Your task to perform on an android device: all mails in gmail Image 0: 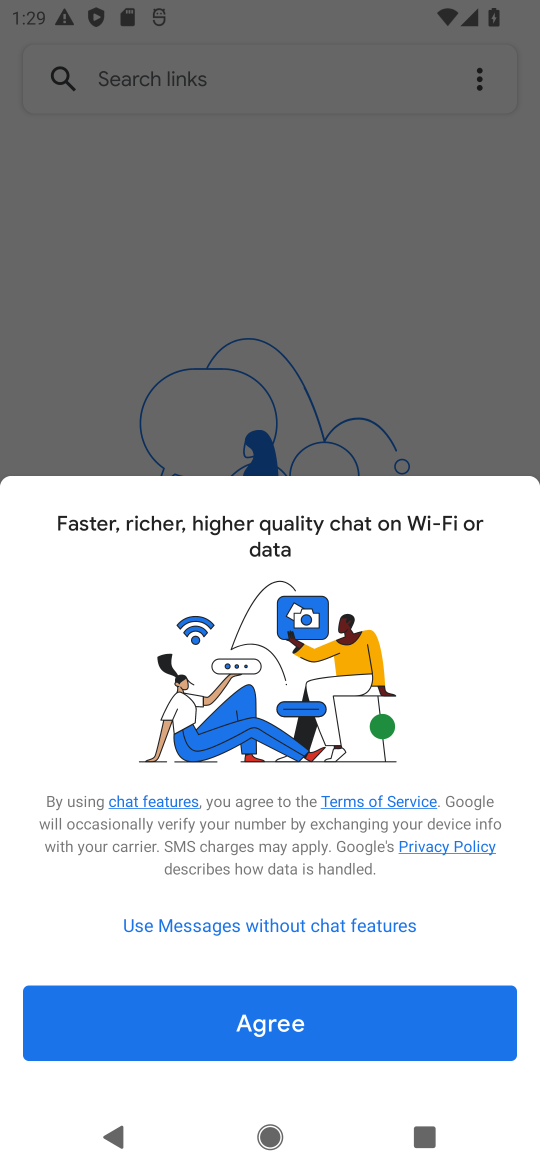
Step 0: press back button
Your task to perform on an android device: all mails in gmail Image 1: 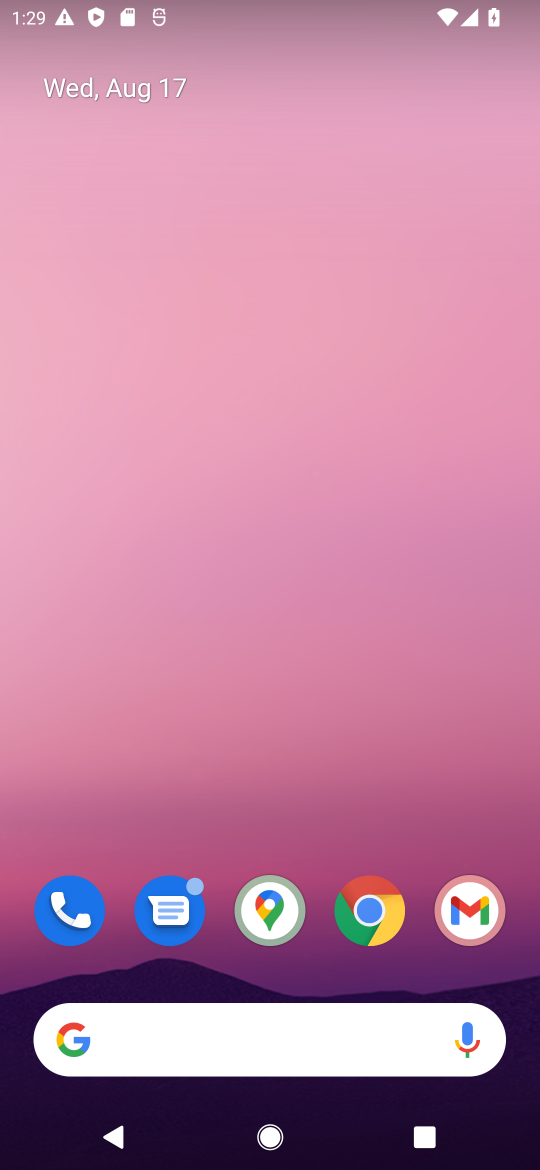
Step 1: click (451, 899)
Your task to perform on an android device: all mails in gmail Image 2: 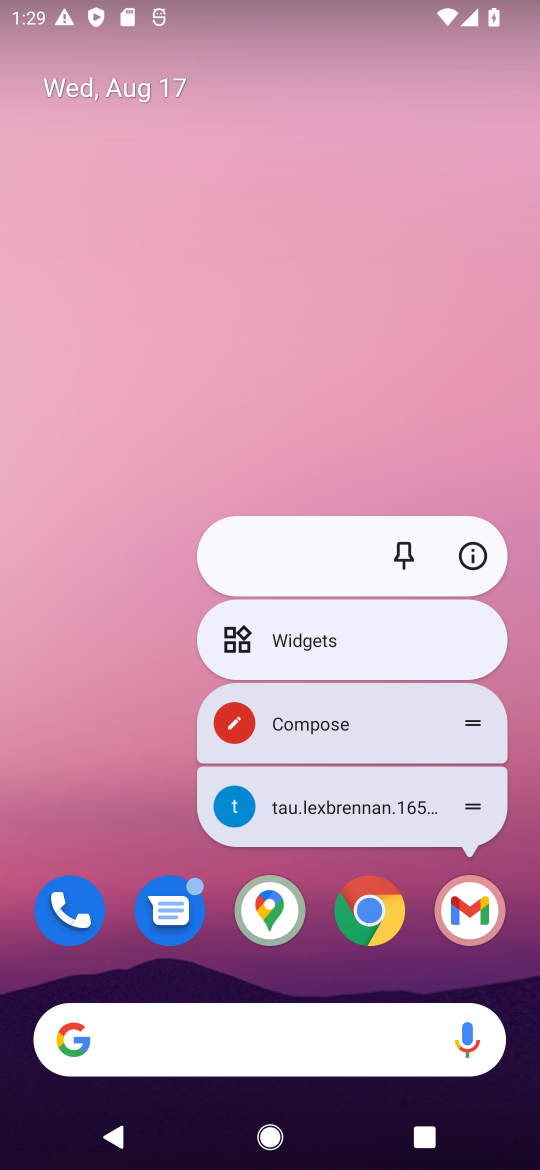
Step 2: click (457, 905)
Your task to perform on an android device: all mails in gmail Image 3: 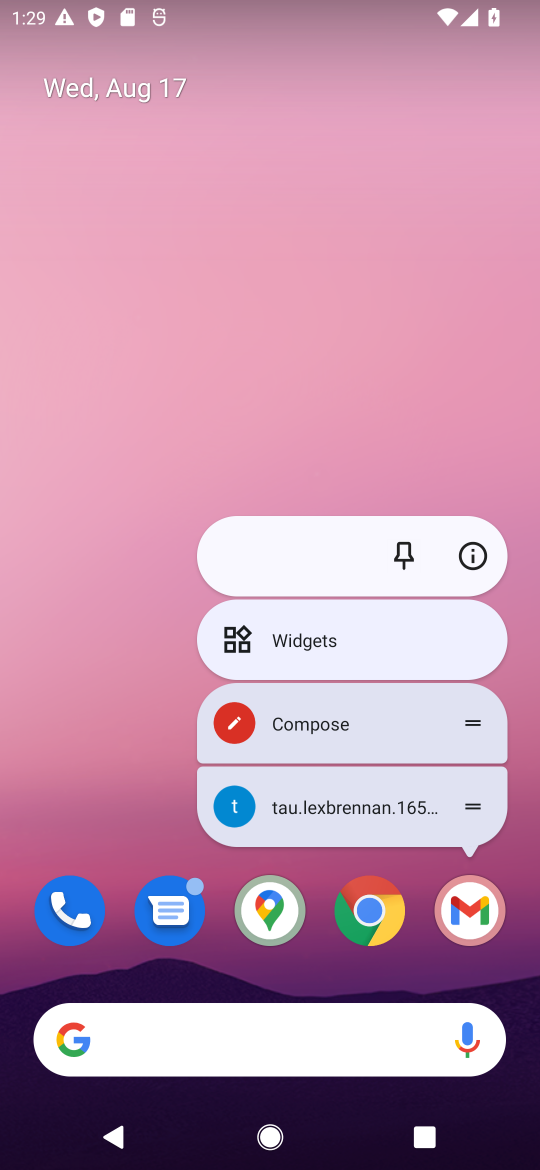
Step 3: click (474, 908)
Your task to perform on an android device: all mails in gmail Image 4: 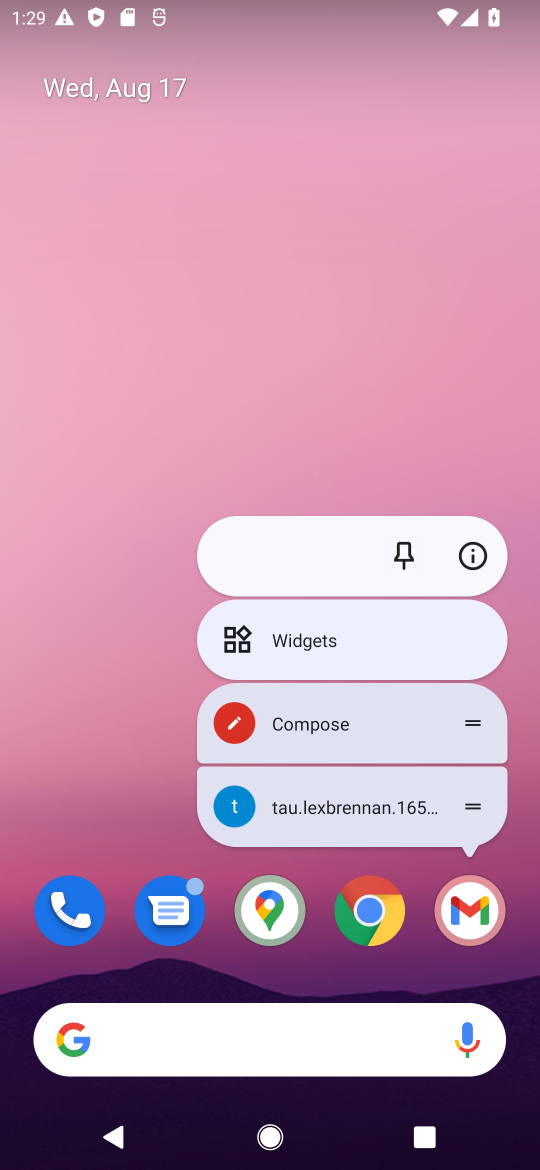
Step 4: click (474, 920)
Your task to perform on an android device: all mails in gmail Image 5: 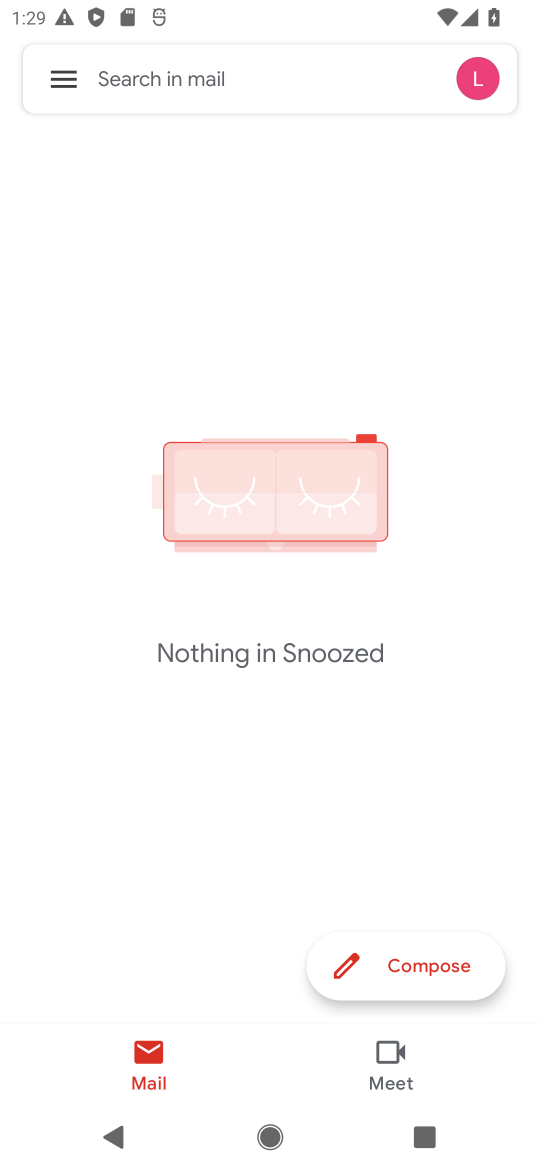
Step 5: click (68, 84)
Your task to perform on an android device: all mails in gmail Image 6: 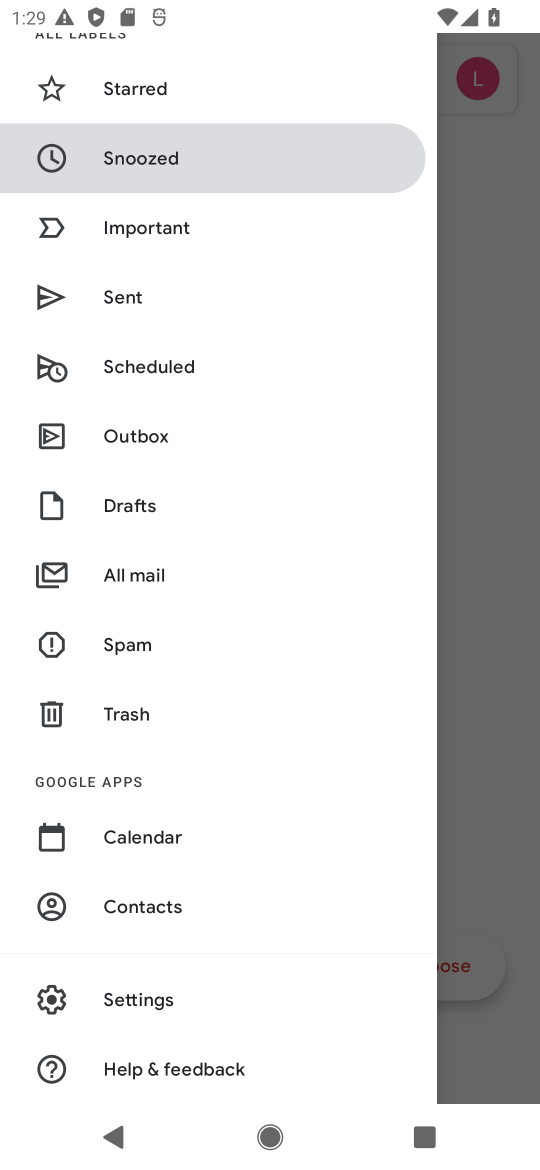
Step 6: click (168, 577)
Your task to perform on an android device: all mails in gmail Image 7: 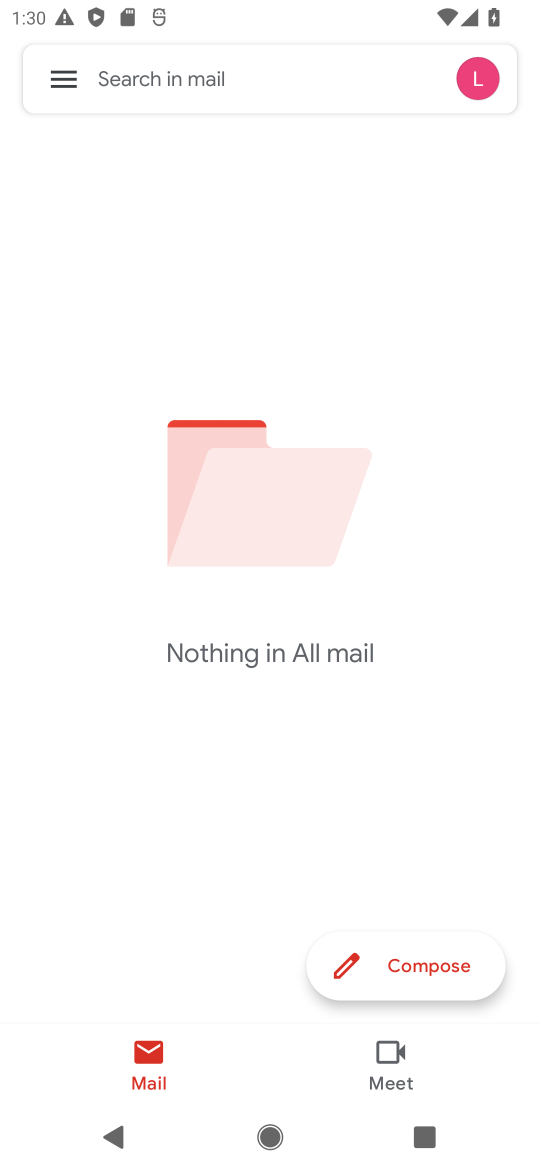
Step 7: task complete